Your task to perform on an android device: see sites visited before in the chrome app Image 0: 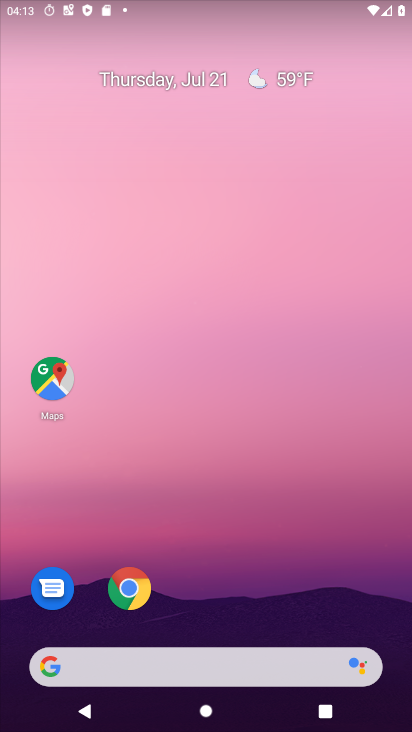
Step 0: drag from (203, 624) to (209, 155)
Your task to perform on an android device: see sites visited before in the chrome app Image 1: 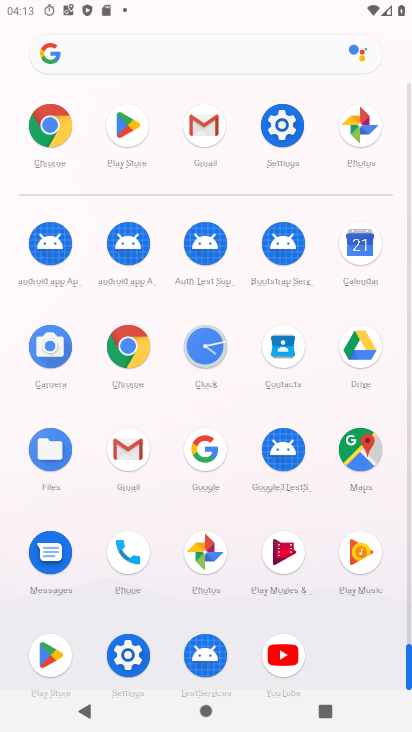
Step 1: click (134, 363)
Your task to perform on an android device: see sites visited before in the chrome app Image 2: 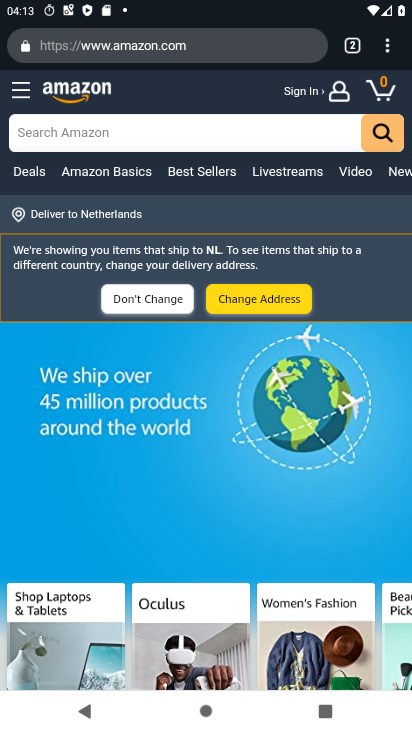
Step 2: click (389, 46)
Your task to perform on an android device: see sites visited before in the chrome app Image 3: 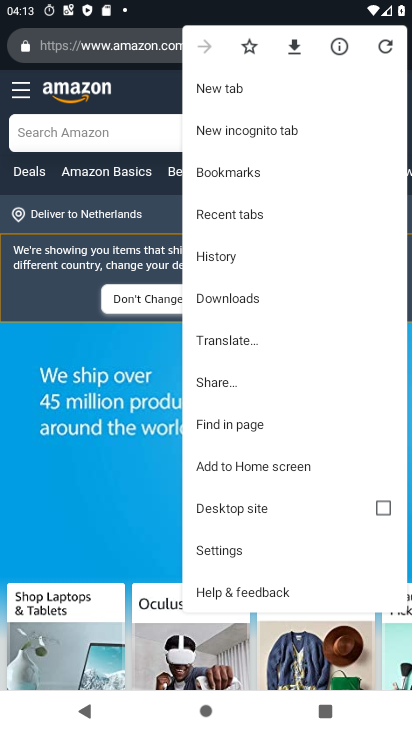
Step 3: click (224, 261)
Your task to perform on an android device: see sites visited before in the chrome app Image 4: 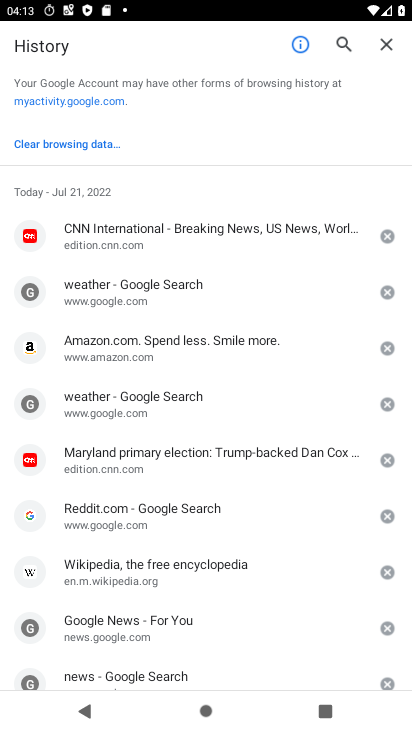
Step 4: task complete